Your task to perform on an android device: turn off picture-in-picture Image 0: 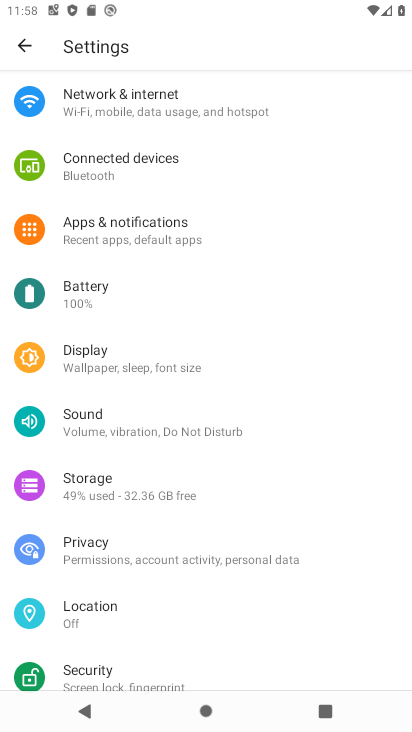
Step 0: press home button
Your task to perform on an android device: turn off picture-in-picture Image 1: 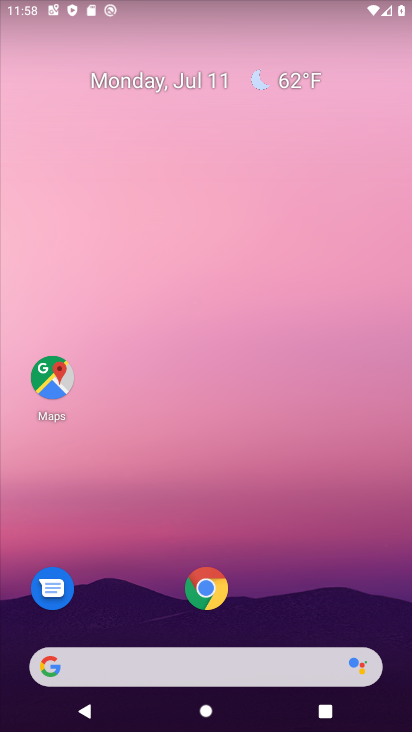
Step 1: drag from (157, 568) to (221, 164)
Your task to perform on an android device: turn off picture-in-picture Image 2: 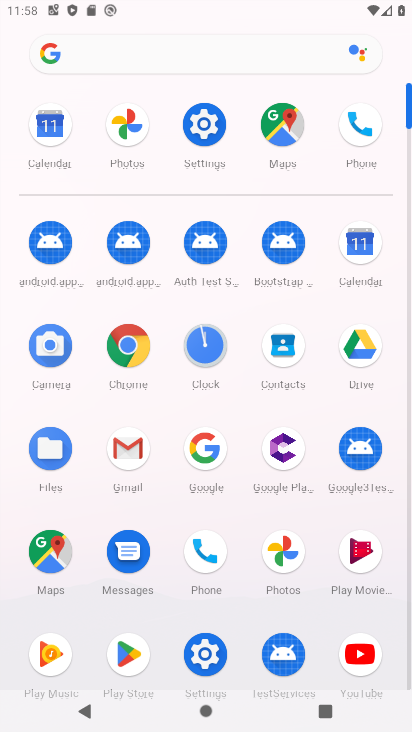
Step 2: click (206, 130)
Your task to perform on an android device: turn off picture-in-picture Image 3: 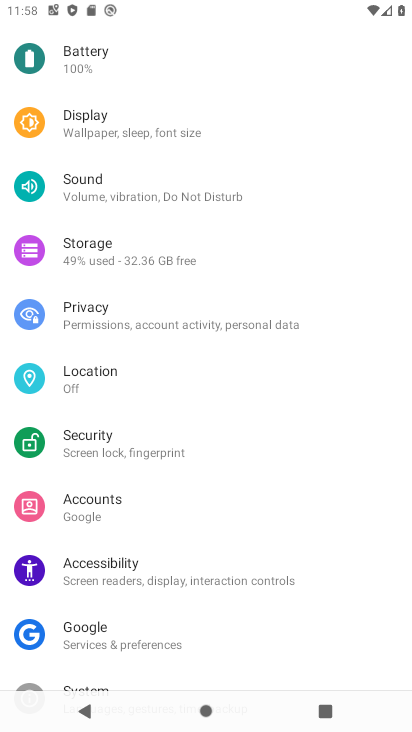
Step 3: drag from (201, 609) to (158, 92)
Your task to perform on an android device: turn off picture-in-picture Image 4: 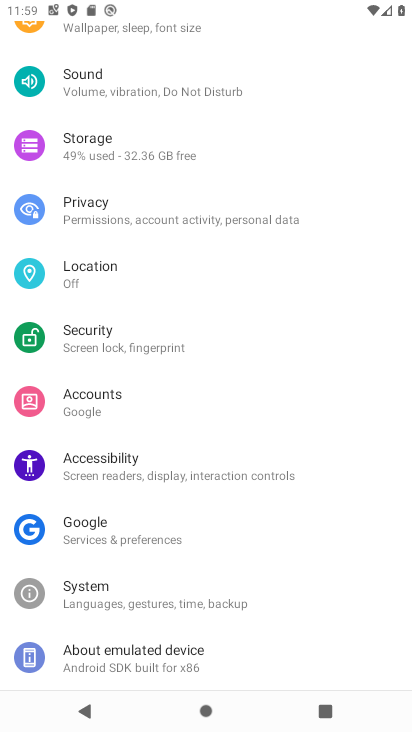
Step 4: drag from (124, 322) to (159, 723)
Your task to perform on an android device: turn off picture-in-picture Image 5: 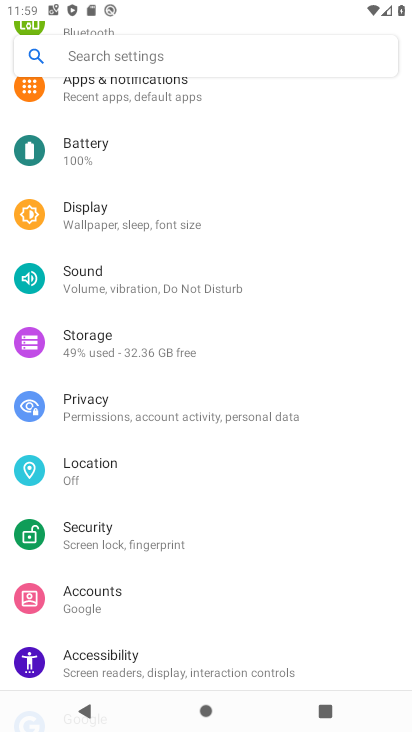
Step 5: drag from (148, 295) to (148, 512)
Your task to perform on an android device: turn off picture-in-picture Image 6: 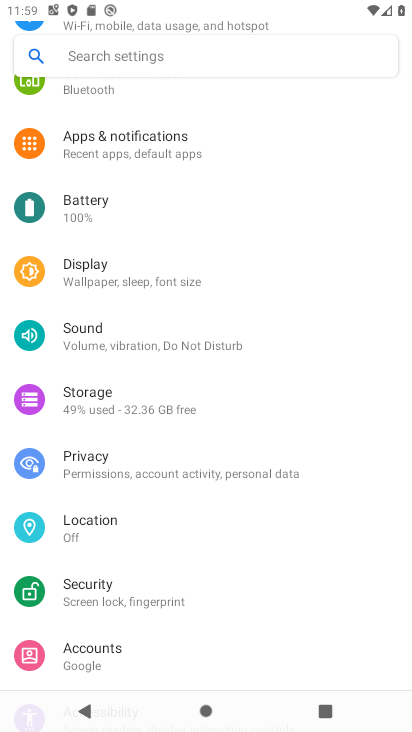
Step 6: drag from (144, 293) to (154, 704)
Your task to perform on an android device: turn off picture-in-picture Image 7: 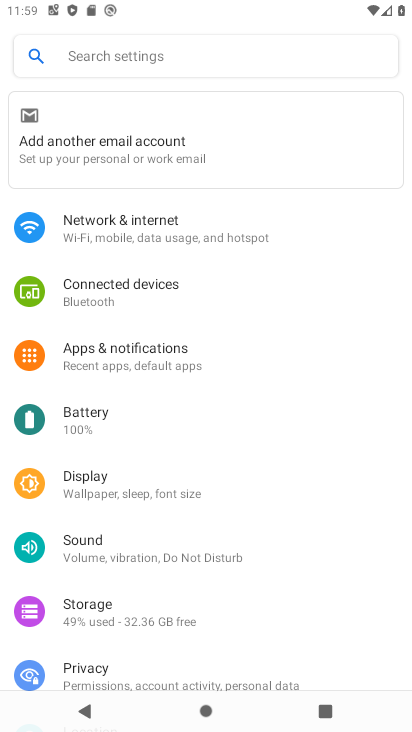
Step 7: click (127, 358)
Your task to perform on an android device: turn off picture-in-picture Image 8: 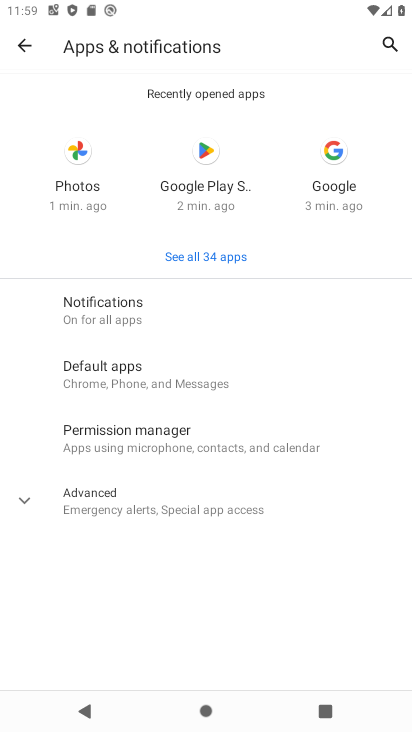
Step 8: click (95, 504)
Your task to perform on an android device: turn off picture-in-picture Image 9: 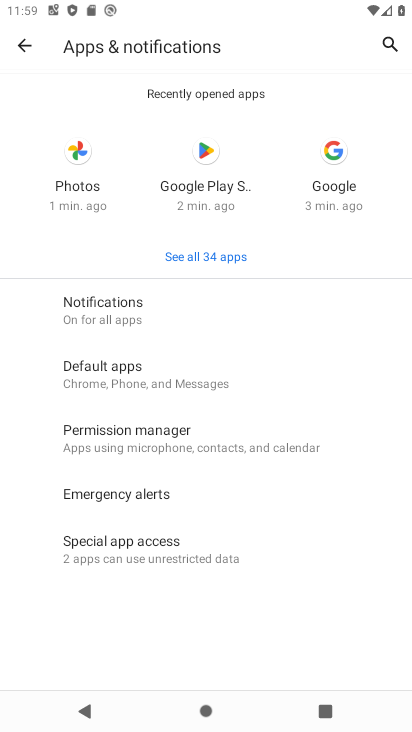
Step 9: click (107, 546)
Your task to perform on an android device: turn off picture-in-picture Image 10: 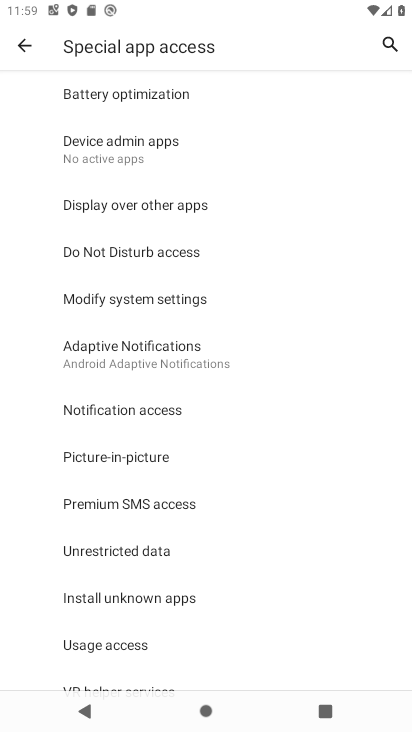
Step 10: click (111, 463)
Your task to perform on an android device: turn off picture-in-picture Image 11: 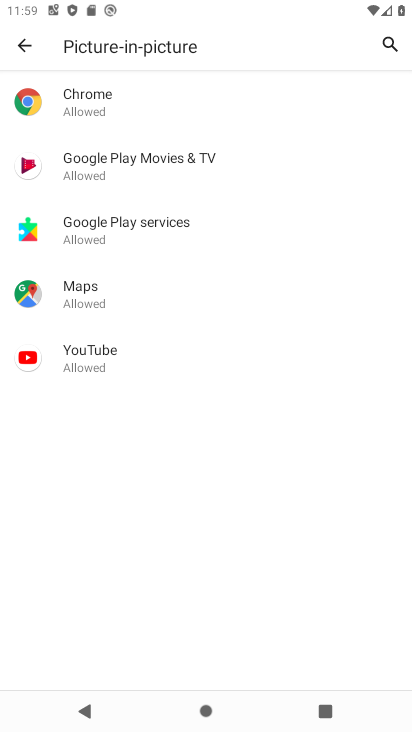
Step 11: click (100, 96)
Your task to perform on an android device: turn off picture-in-picture Image 12: 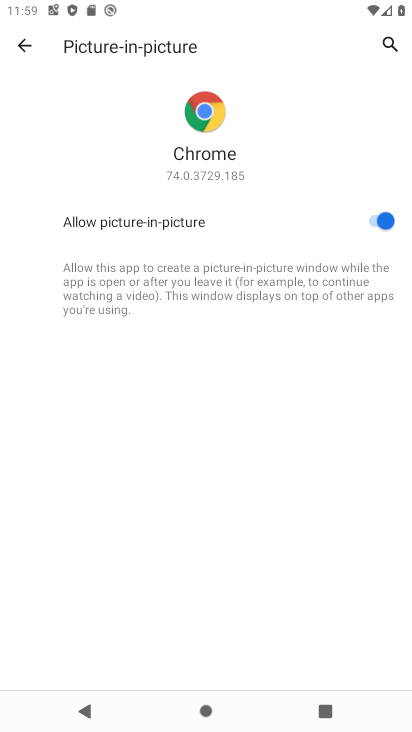
Step 12: click (396, 224)
Your task to perform on an android device: turn off picture-in-picture Image 13: 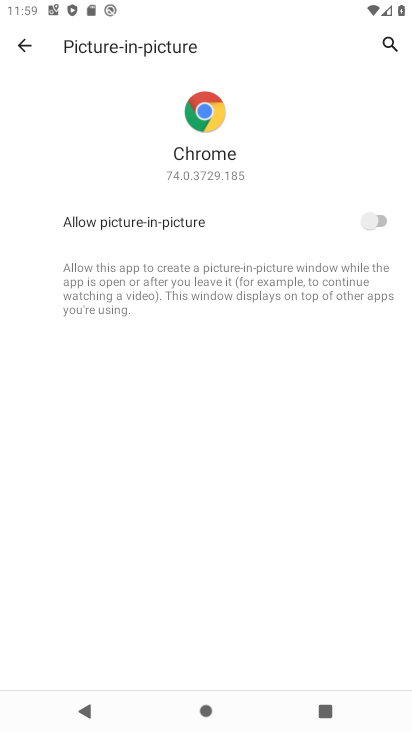
Step 13: click (368, 224)
Your task to perform on an android device: turn off picture-in-picture Image 14: 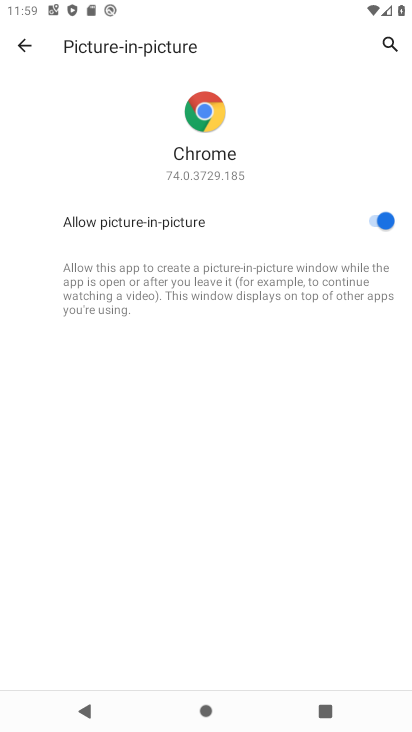
Step 14: click (368, 224)
Your task to perform on an android device: turn off picture-in-picture Image 15: 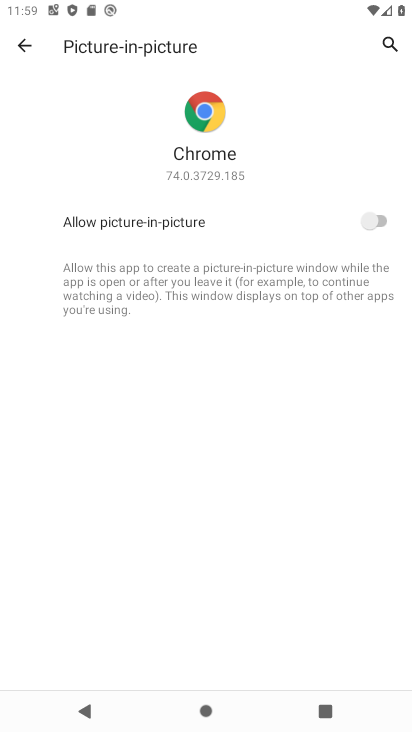
Step 15: task complete